Your task to perform on an android device: check android version Image 0: 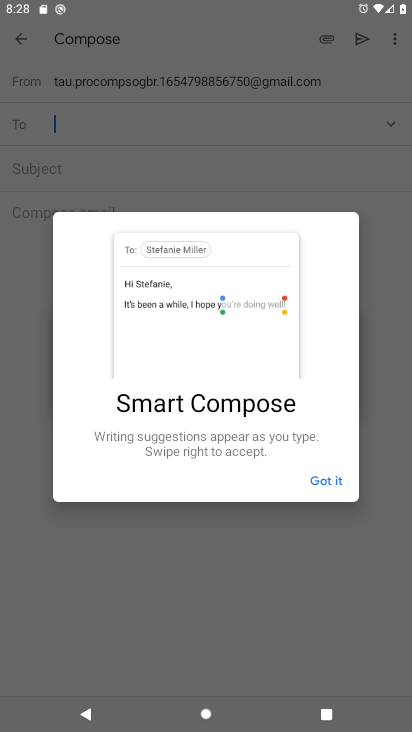
Step 0: press home button
Your task to perform on an android device: check android version Image 1: 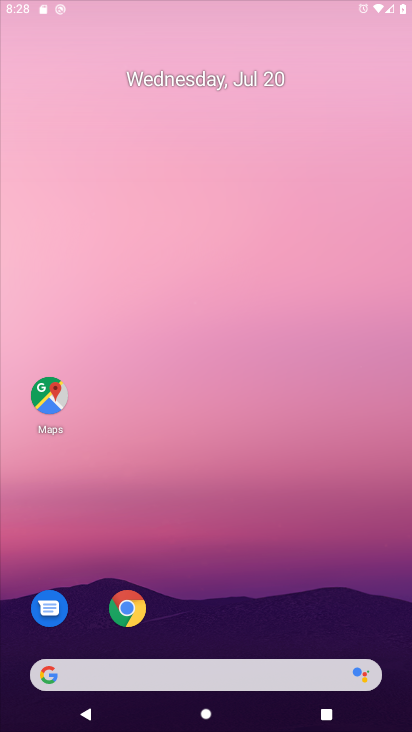
Step 1: drag from (181, 664) to (210, 226)
Your task to perform on an android device: check android version Image 2: 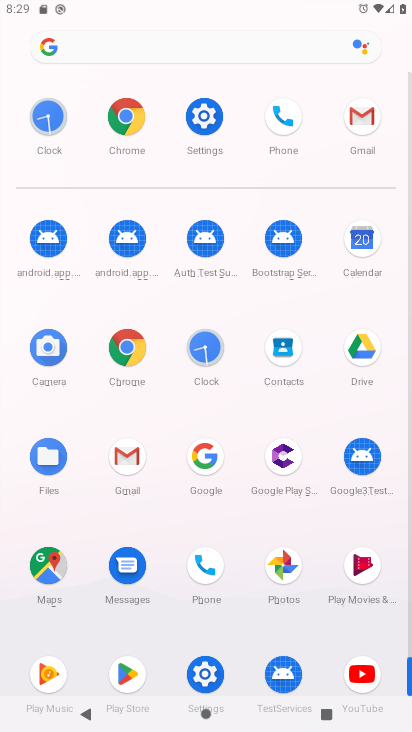
Step 2: click (201, 106)
Your task to perform on an android device: check android version Image 3: 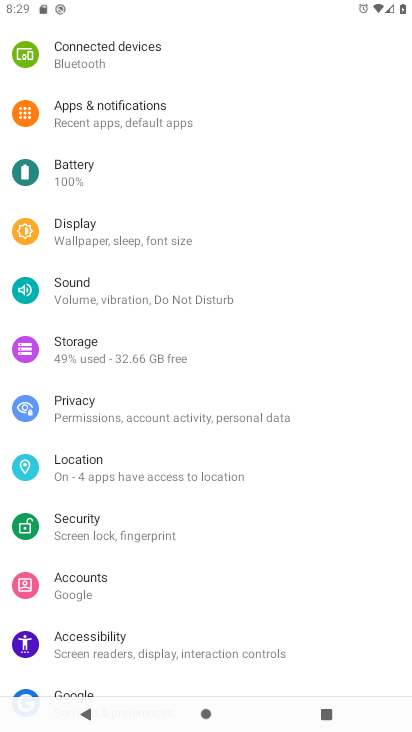
Step 3: drag from (153, 651) to (199, 302)
Your task to perform on an android device: check android version Image 4: 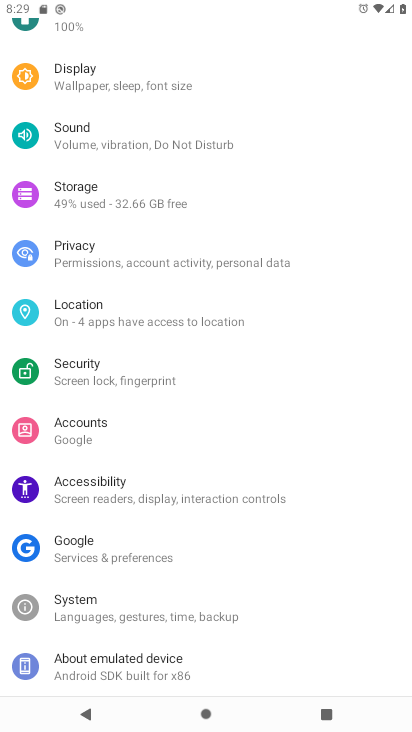
Step 4: click (140, 670)
Your task to perform on an android device: check android version Image 5: 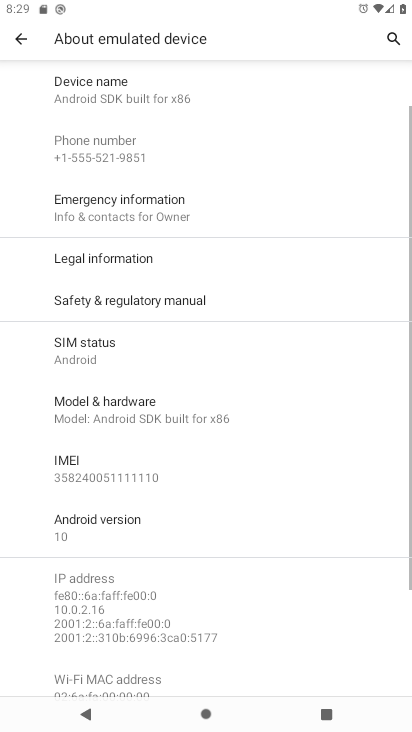
Step 5: click (136, 517)
Your task to perform on an android device: check android version Image 6: 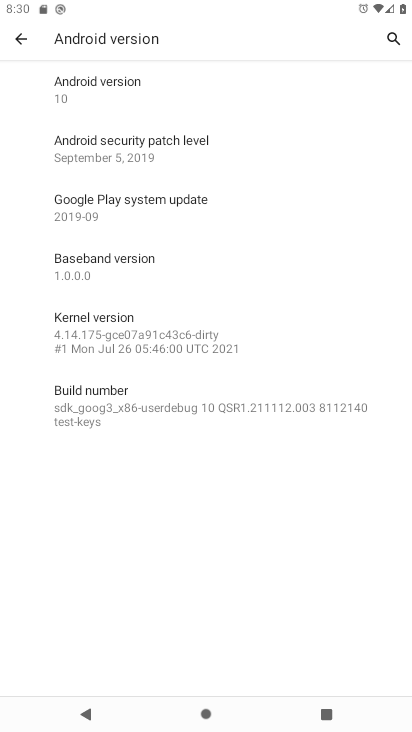
Step 6: task complete